Your task to perform on an android device: show emergency info Image 0: 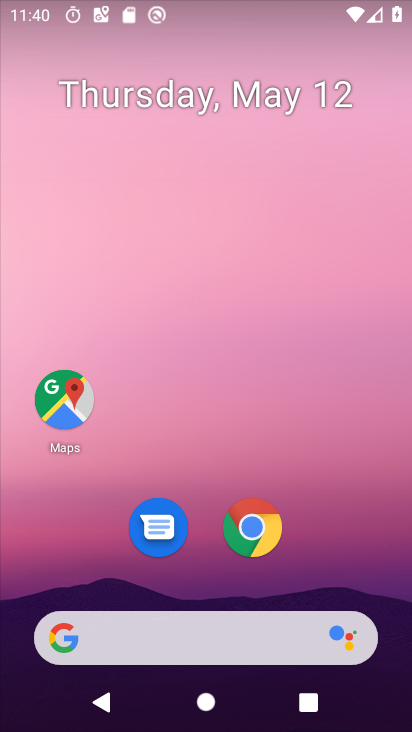
Step 0: drag from (289, 571) to (323, 246)
Your task to perform on an android device: show emergency info Image 1: 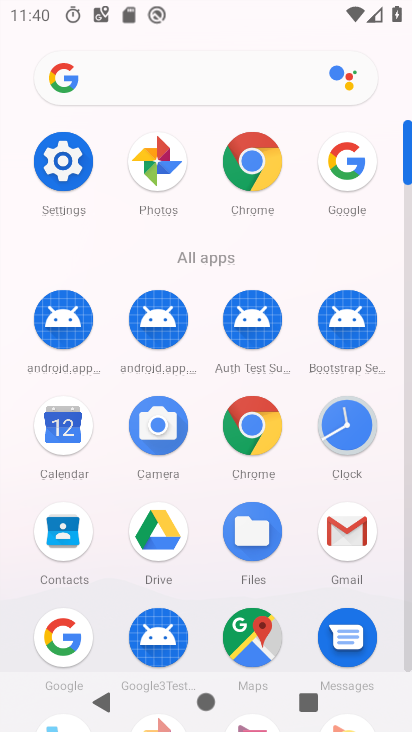
Step 1: click (67, 173)
Your task to perform on an android device: show emergency info Image 2: 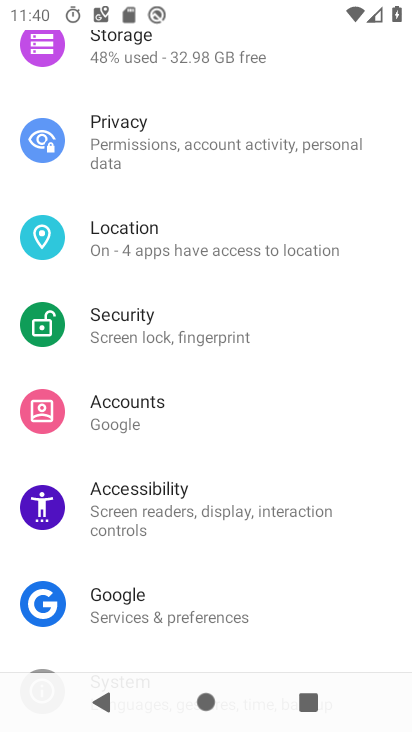
Step 2: drag from (210, 607) to (212, 159)
Your task to perform on an android device: show emergency info Image 3: 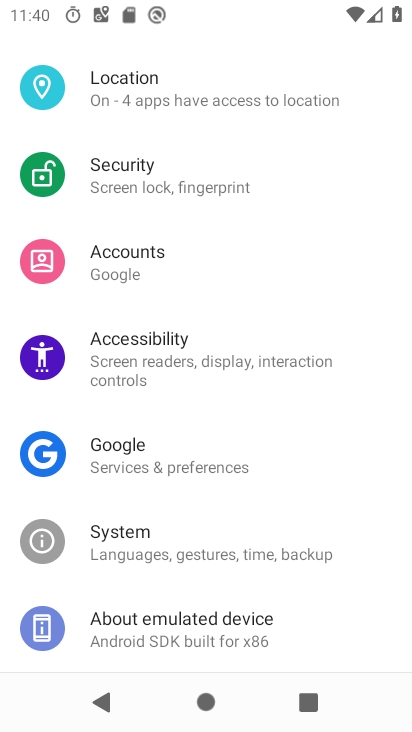
Step 3: click (163, 630)
Your task to perform on an android device: show emergency info Image 4: 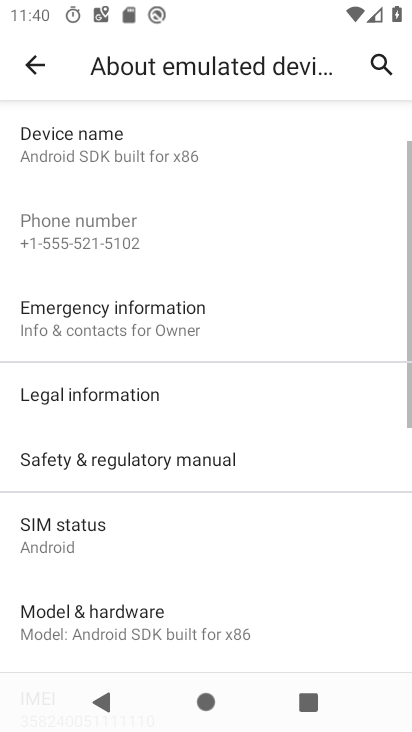
Step 4: click (63, 313)
Your task to perform on an android device: show emergency info Image 5: 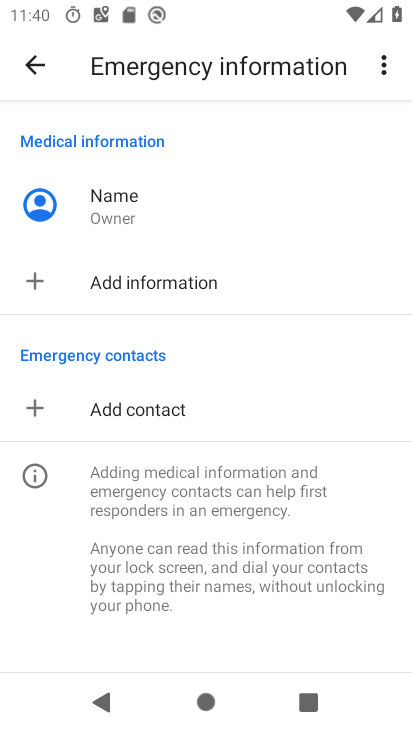
Step 5: task complete